Your task to perform on an android device: install app "Nova Launcher" Image 0: 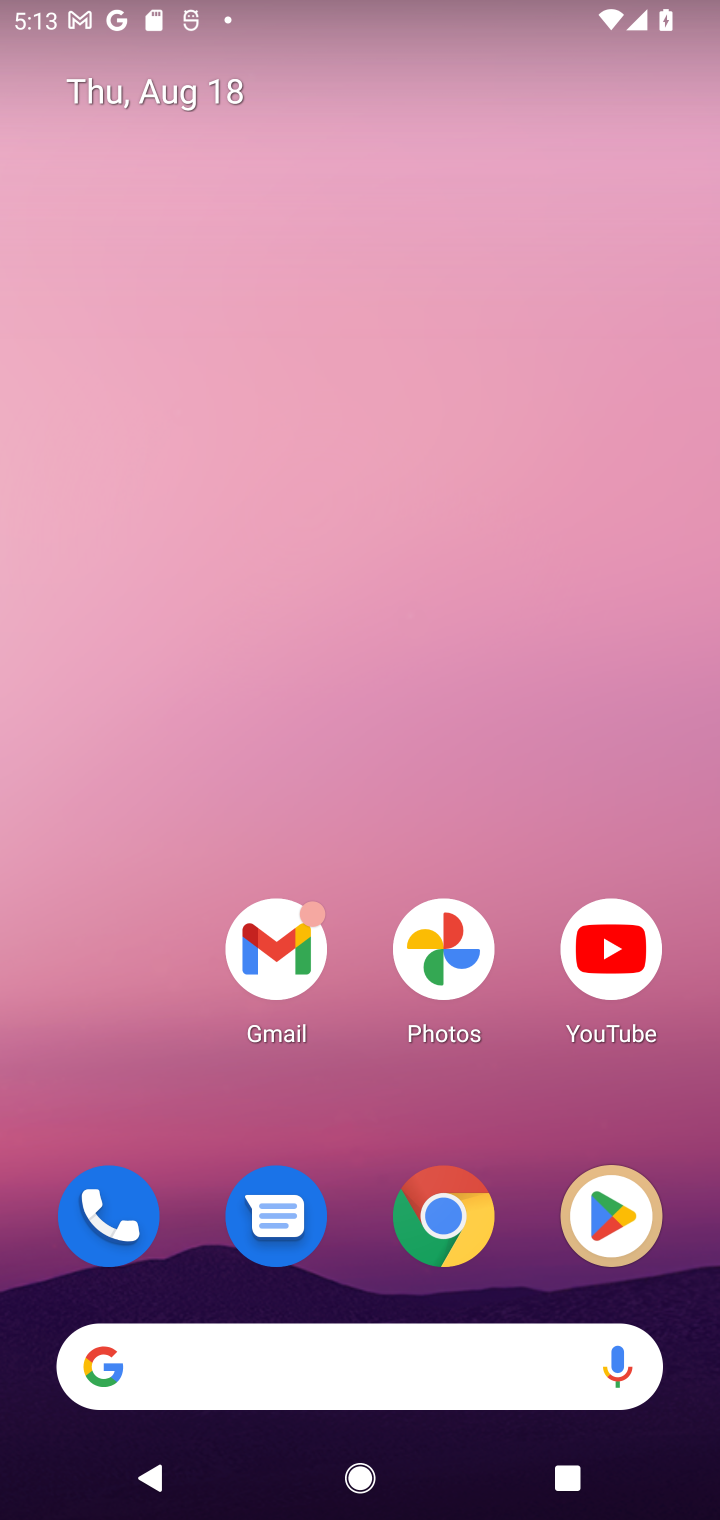
Step 0: click (615, 1219)
Your task to perform on an android device: install app "Nova Launcher" Image 1: 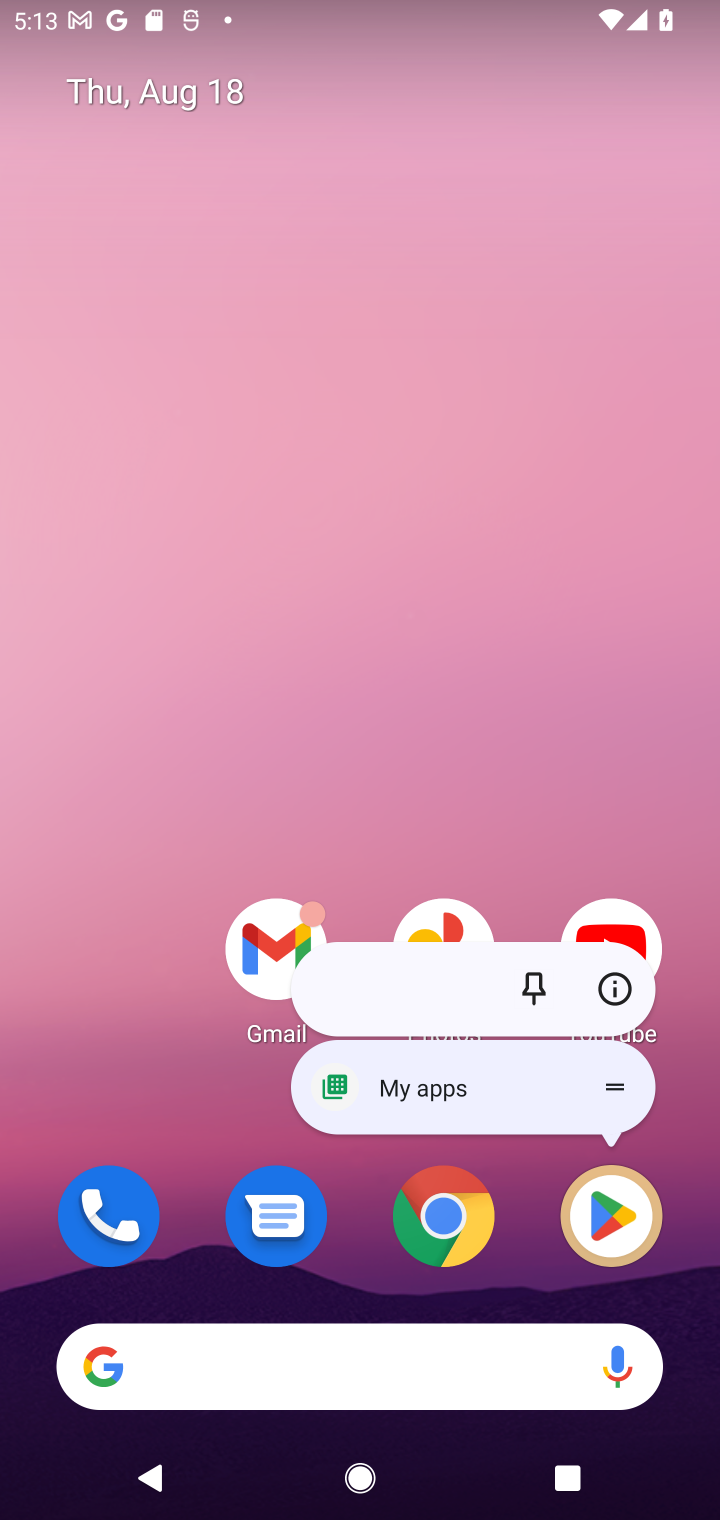
Step 1: click (615, 1219)
Your task to perform on an android device: install app "Nova Launcher" Image 2: 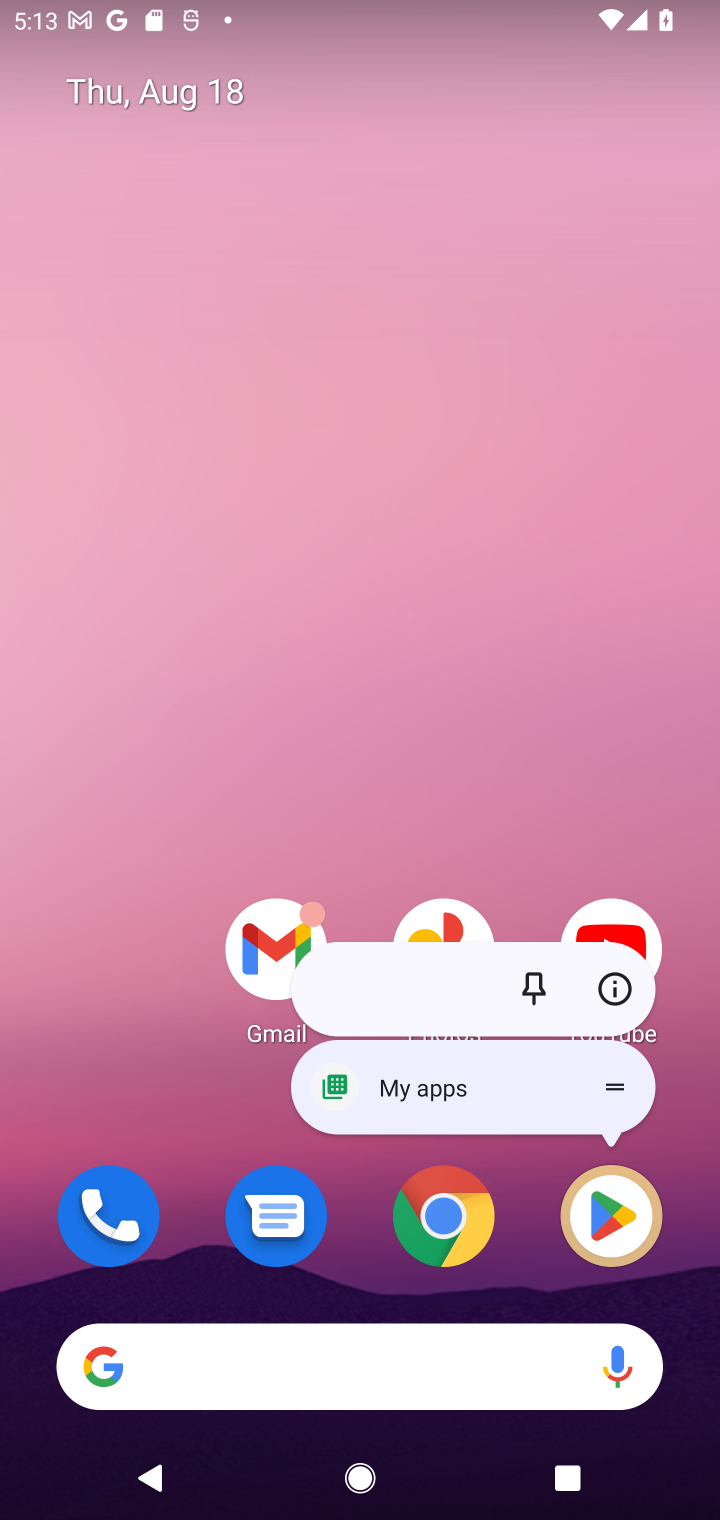
Step 2: click (615, 1219)
Your task to perform on an android device: install app "Nova Launcher" Image 3: 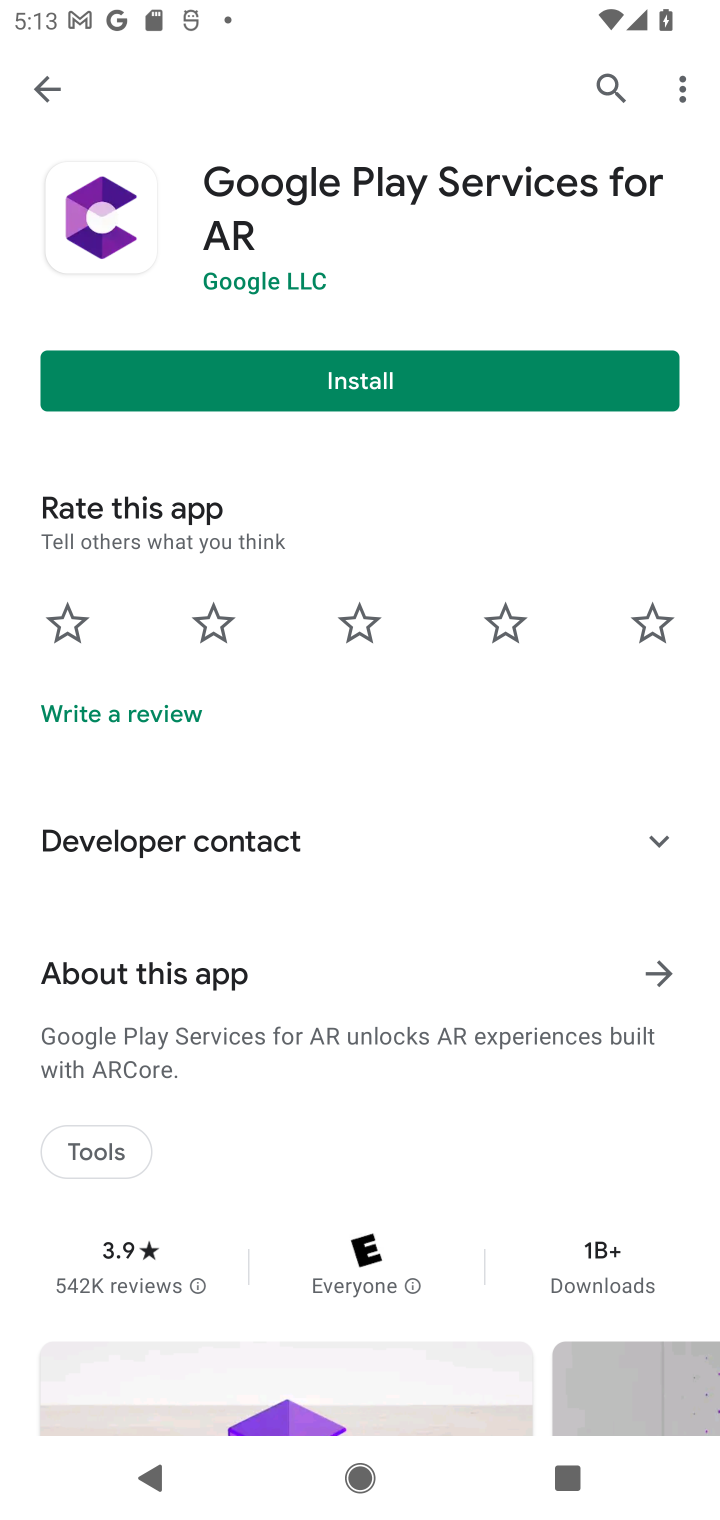
Step 3: click (602, 88)
Your task to perform on an android device: install app "Nova Launcher" Image 4: 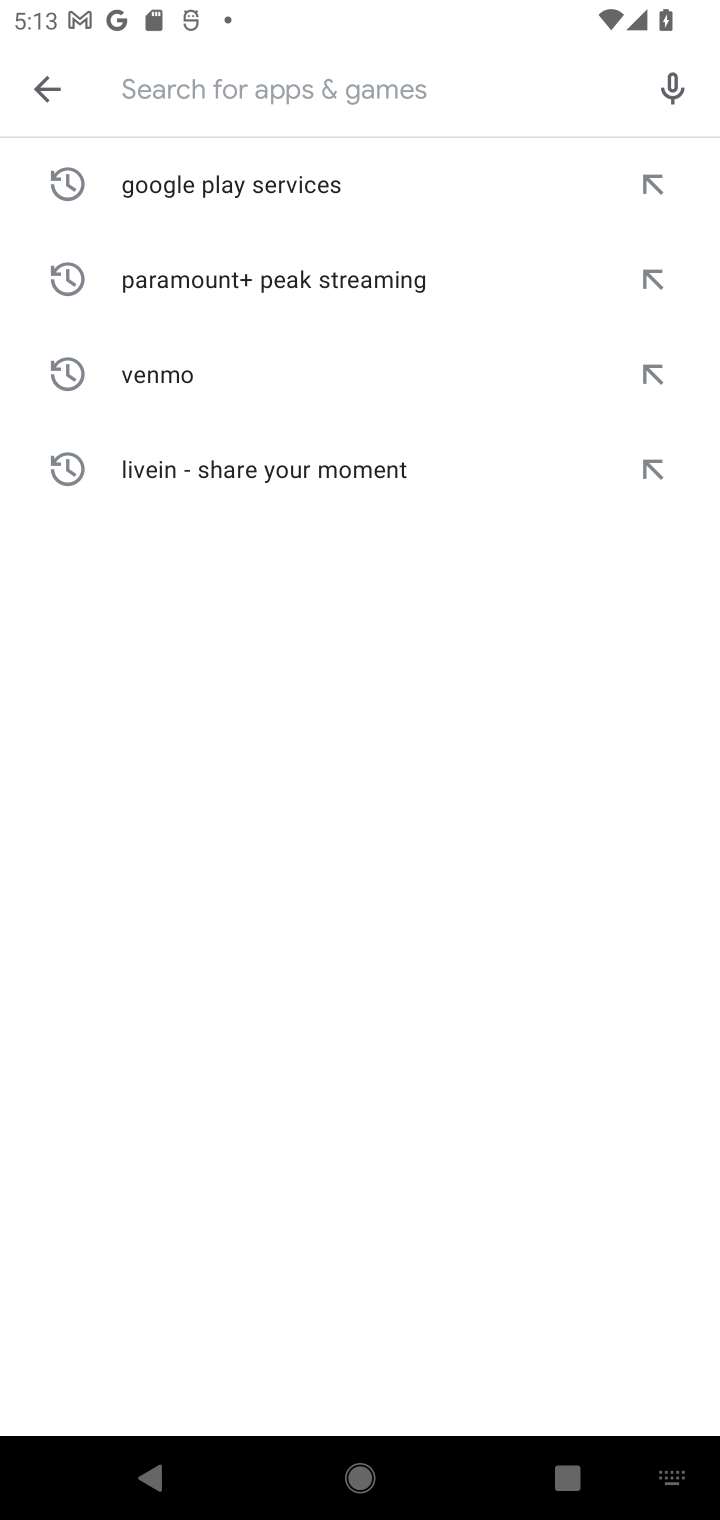
Step 4: type "Nova Launcher"
Your task to perform on an android device: install app "Nova Launcher" Image 5: 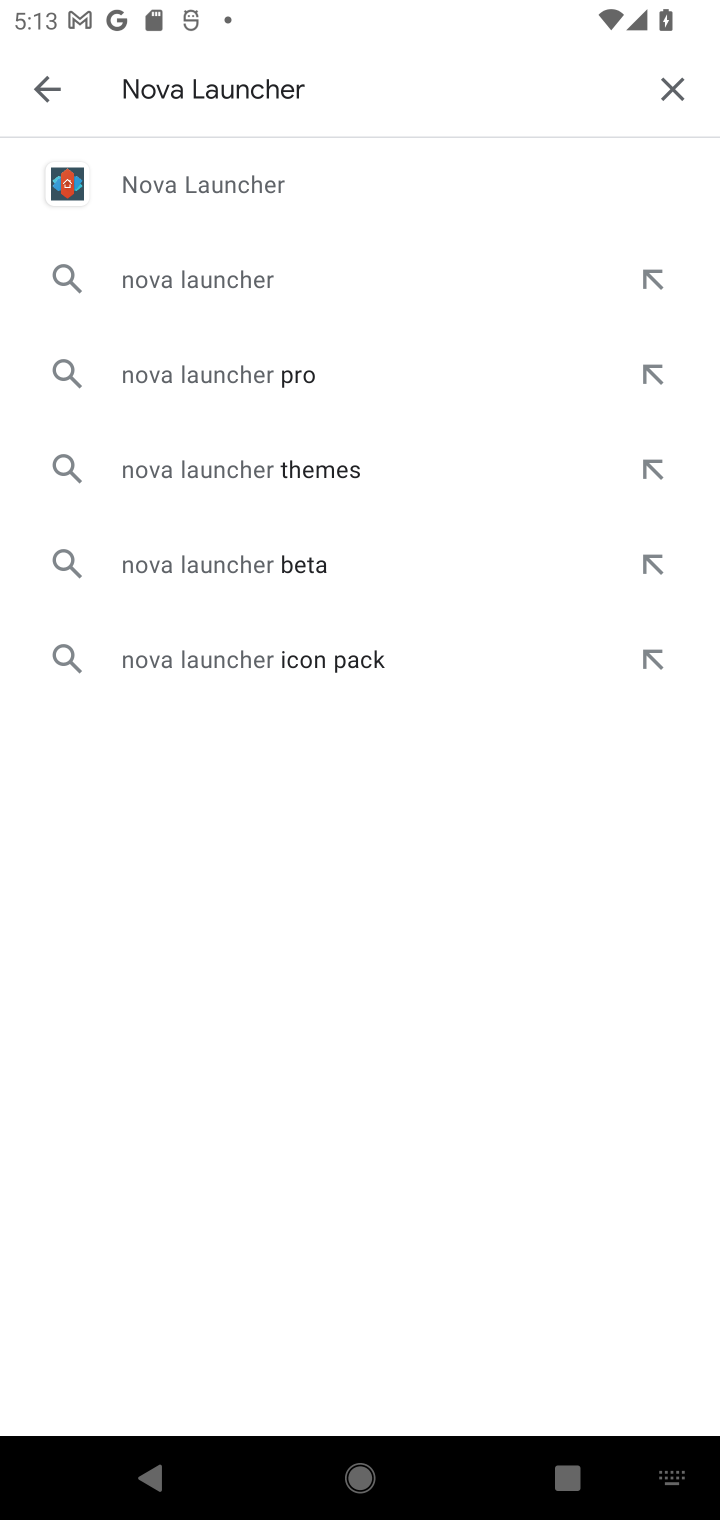
Step 5: click (166, 176)
Your task to perform on an android device: install app "Nova Launcher" Image 6: 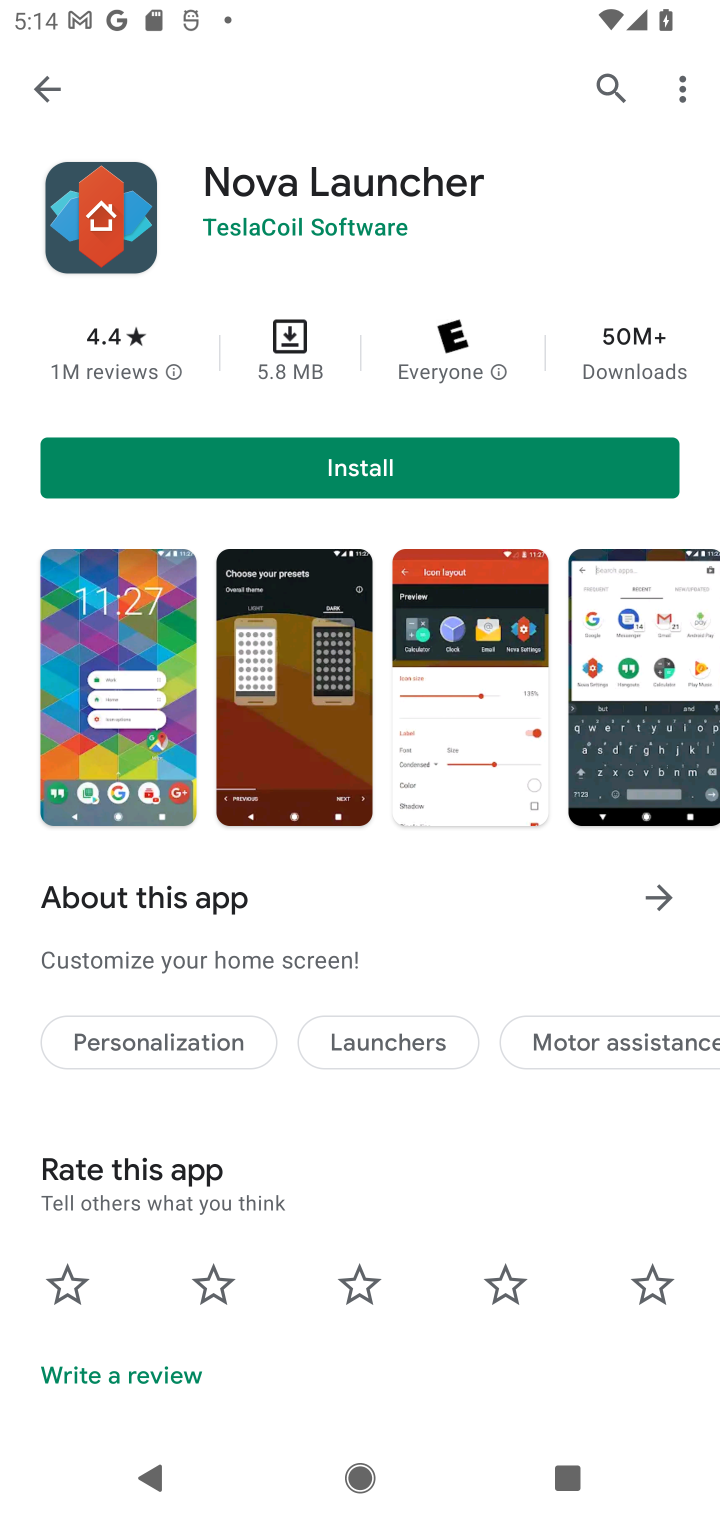
Step 6: click (369, 464)
Your task to perform on an android device: install app "Nova Launcher" Image 7: 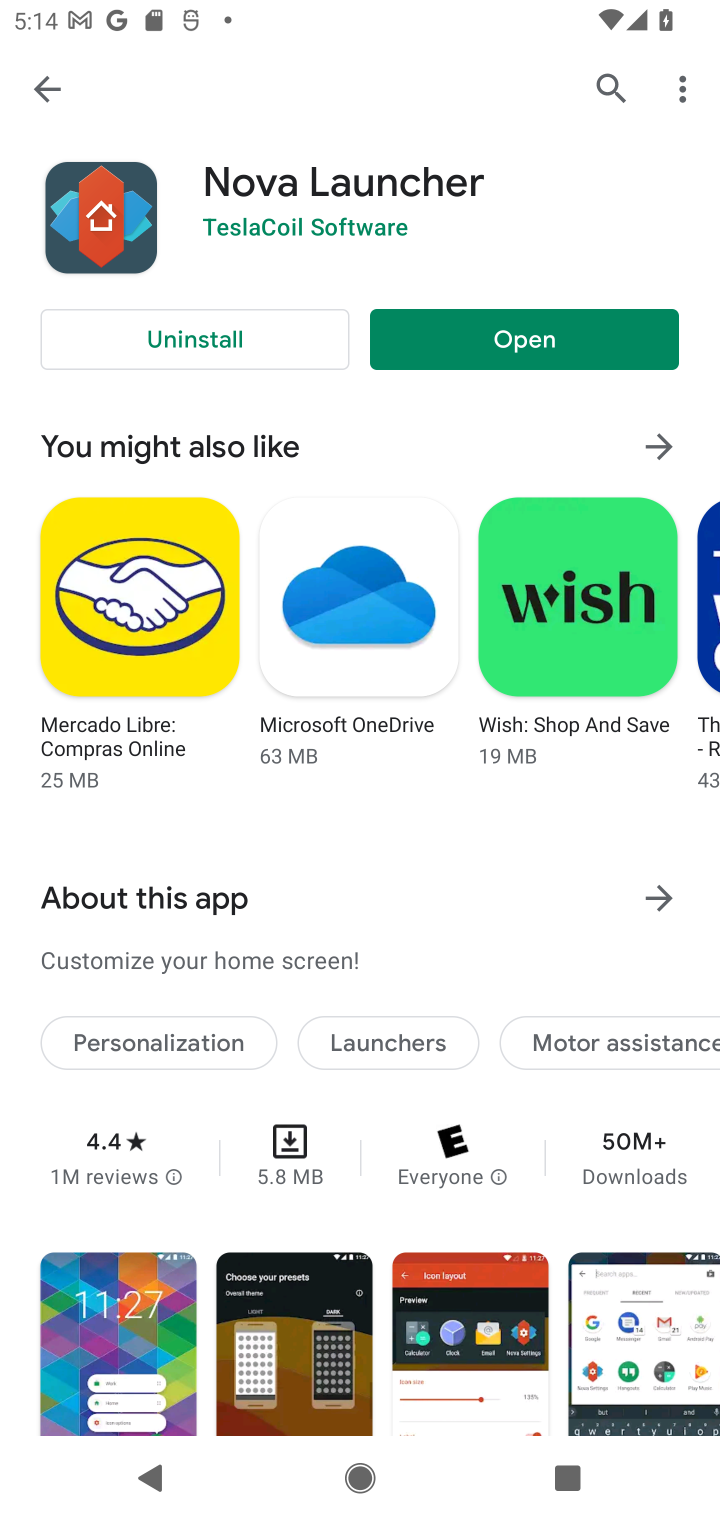
Step 7: task complete